Your task to perform on an android device: see tabs open on other devices in the chrome app Image 0: 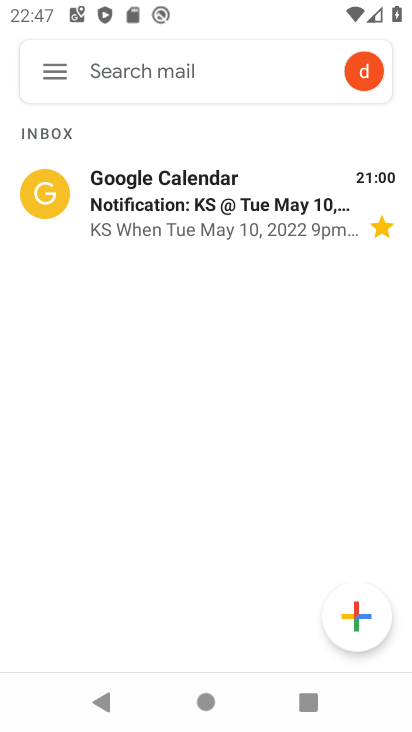
Step 0: press home button
Your task to perform on an android device: see tabs open on other devices in the chrome app Image 1: 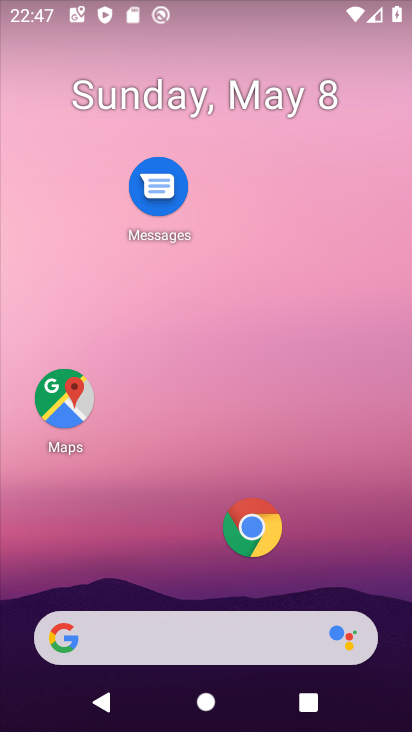
Step 1: click (251, 528)
Your task to perform on an android device: see tabs open on other devices in the chrome app Image 2: 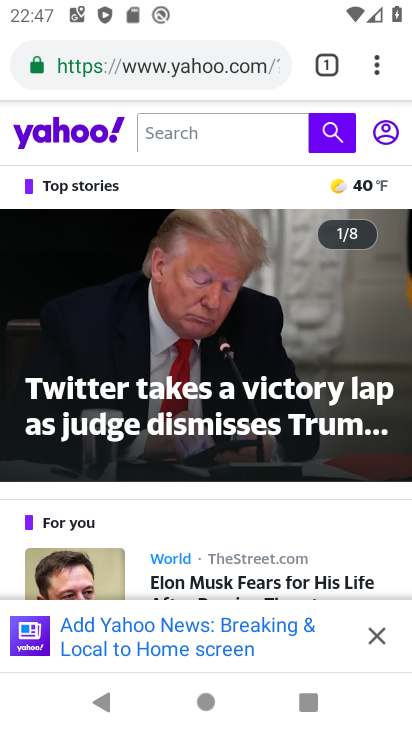
Step 2: click (329, 63)
Your task to perform on an android device: see tabs open on other devices in the chrome app Image 3: 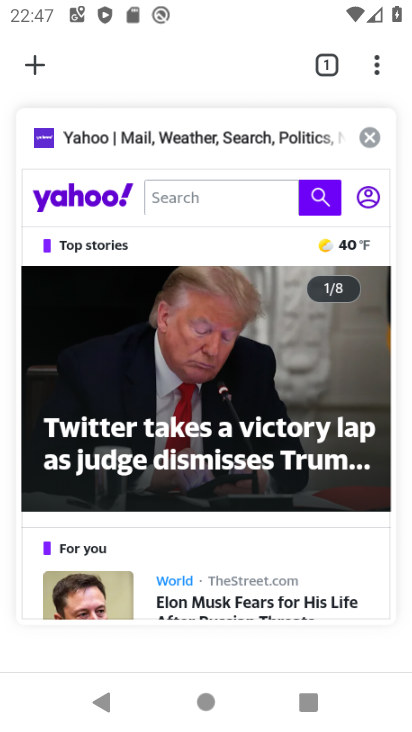
Step 3: task complete